Your task to perform on an android device: Go to eBay Image 0: 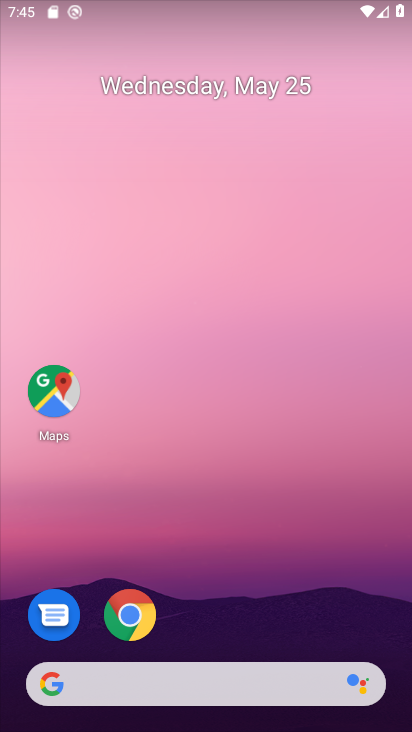
Step 0: drag from (222, 588) to (201, 3)
Your task to perform on an android device: Go to eBay Image 1: 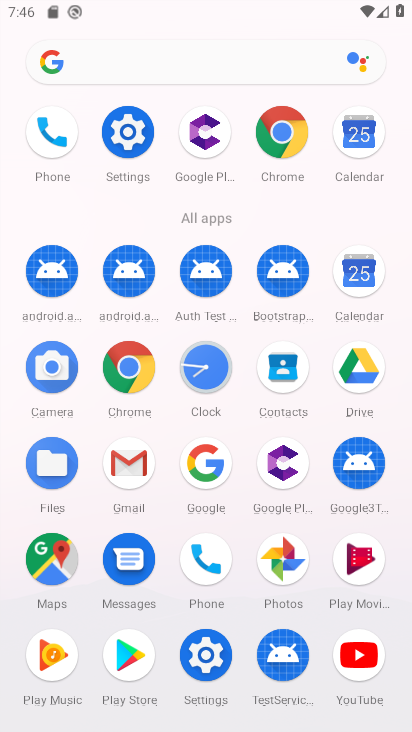
Step 1: click (133, 363)
Your task to perform on an android device: Go to eBay Image 2: 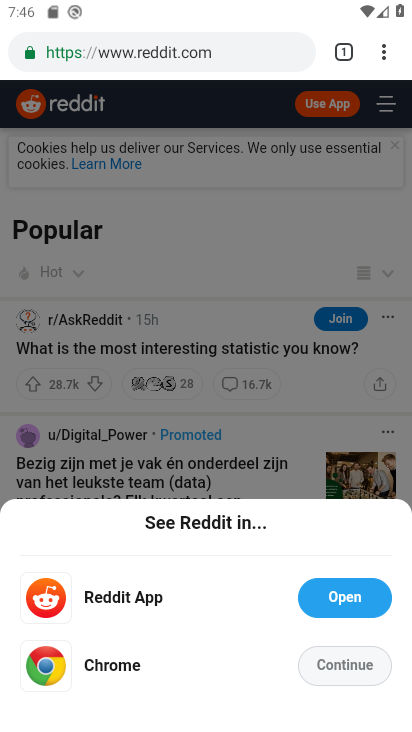
Step 2: click (185, 51)
Your task to perform on an android device: Go to eBay Image 3: 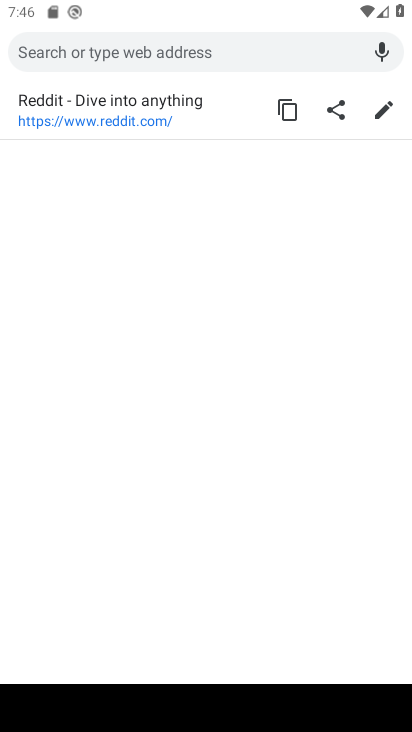
Step 3: type "eBay"
Your task to perform on an android device: Go to eBay Image 4: 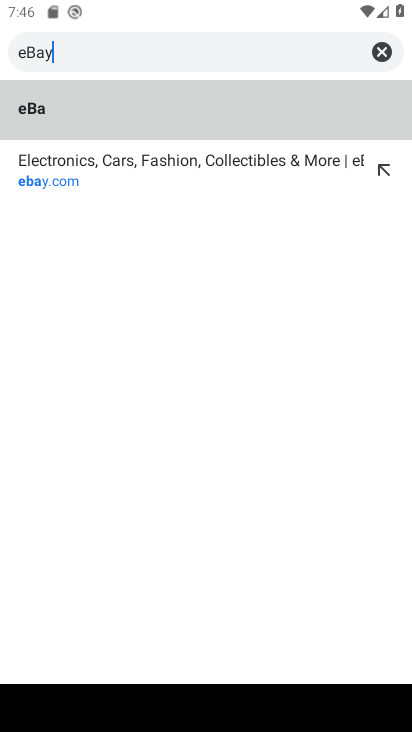
Step 4: type ""
Your task to perform on an android device: Go to eBay Image 5: 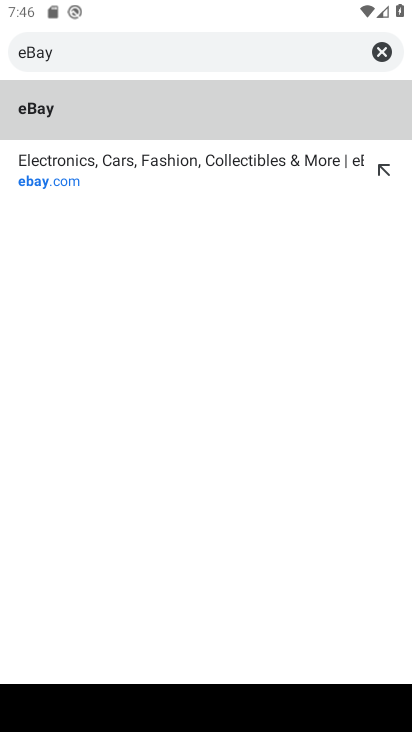
Step 5: click (94, 153)
Your task to perform on an android device: Go to eBay Image 6: 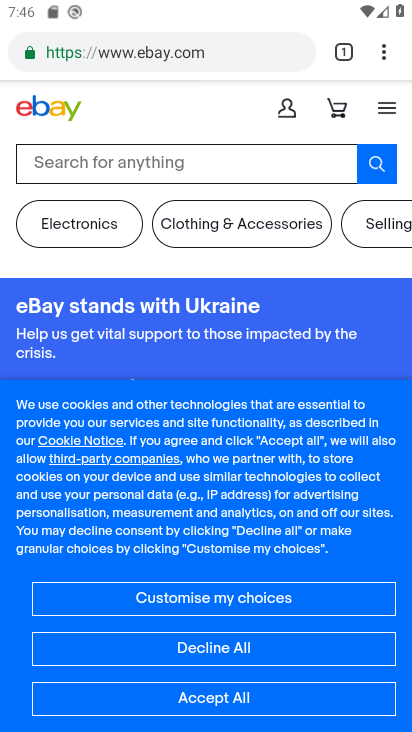
Step 6: task complete